Your task to perform on an android device: Go to CNN.com Image 0: 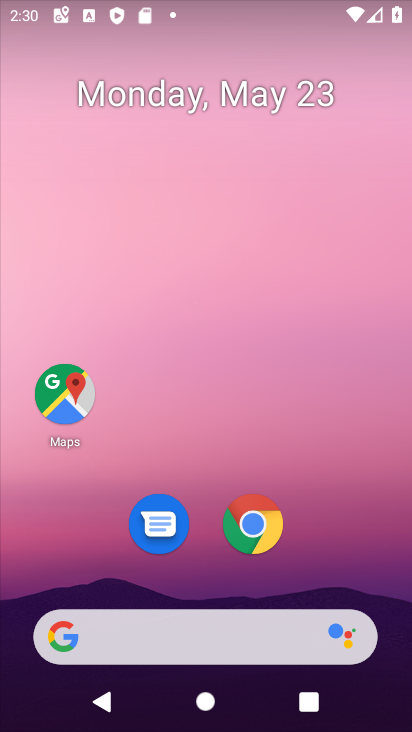
Step 0: click (205, 633)
Your task to perform on an android device: Go to CNN.com Image 1: 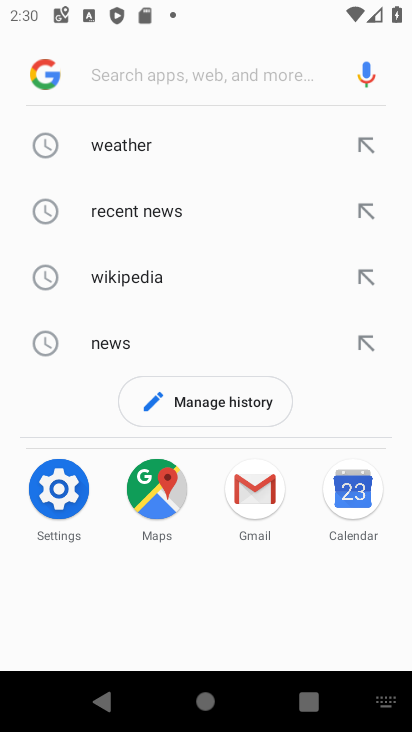
Step 1: type "cnn.com"
Your task to perform on an android device: Go to CNN.com Image 2: 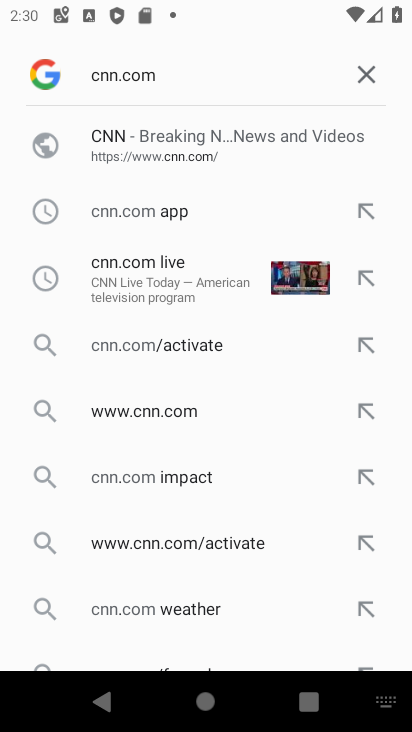
Step 2: click (103, 131)
Your task to perform on an android device: Go to CNN.com Image 3: 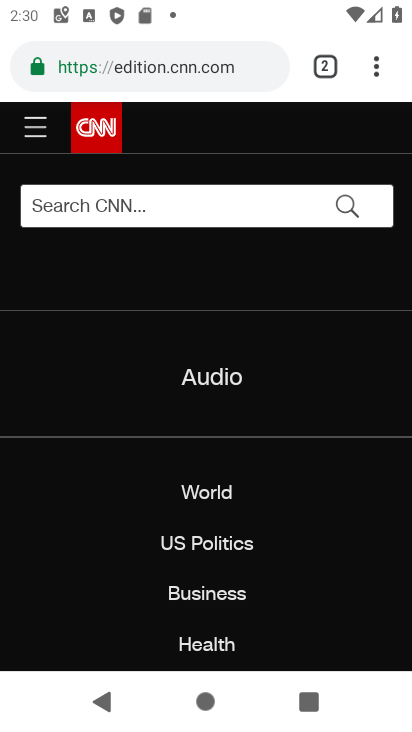
Step 3: task complete